Your task to perform on an android device: Go to Reddit.com Image 0: 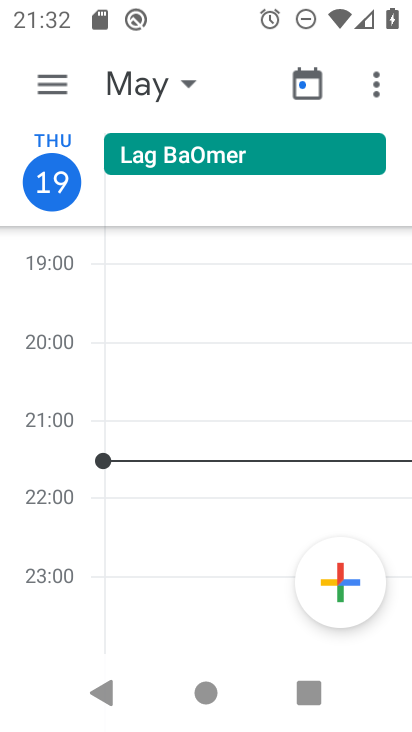
Step 0: press home button
Your task to perform on an android device: Go to Reddit.com Image 1: 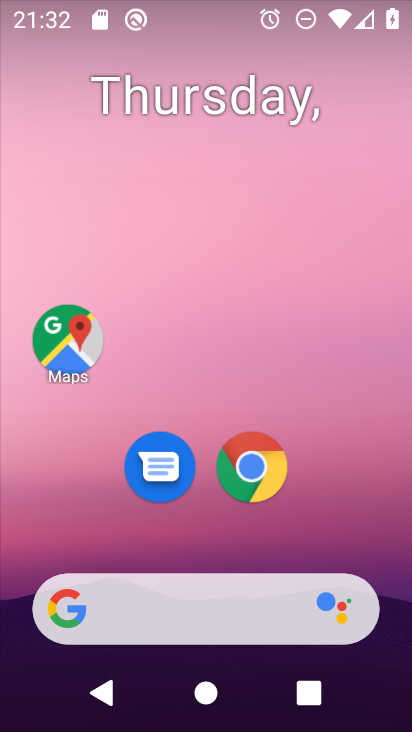
Step 1: click (254, 464)
Your task to perform on an android device: Go to Reddit.com Image 2: 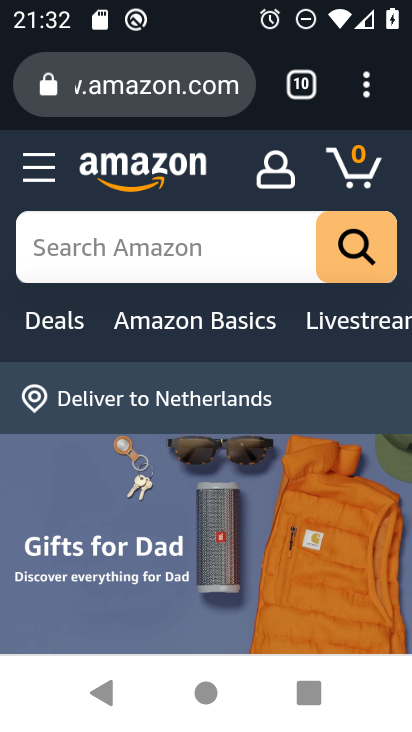
Step 2: click (352, 82)
Your task to perform on an android device: Go to Reddit.com Image 3: 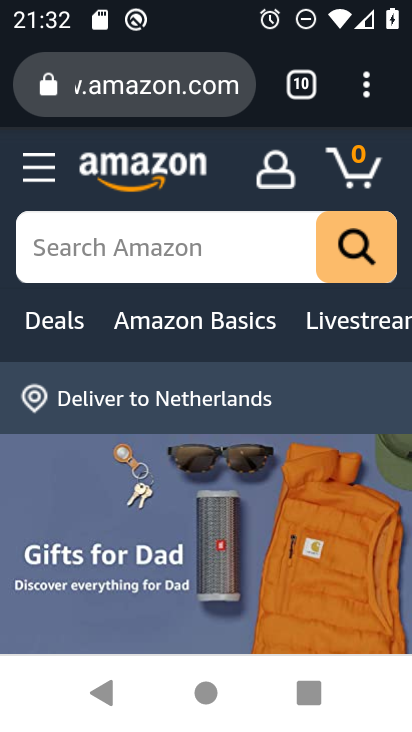
Step 3: click (354, 80)
Your task to perform on an android device: Go to Reddit.com Image 4: 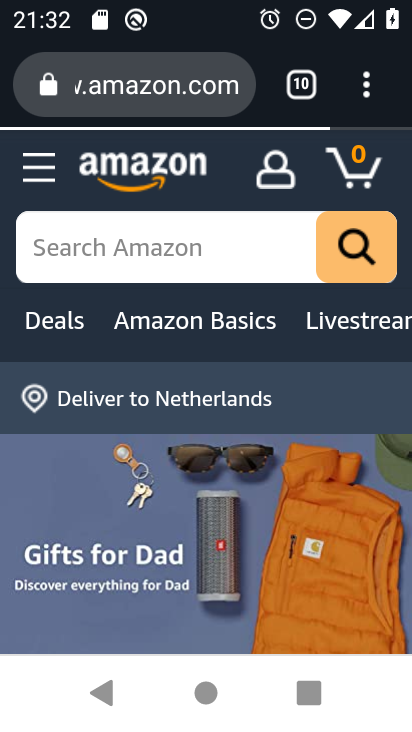
Step 4: click (366, 102)
Your task to perform on an android device: Go to Reddit.com Image 5: 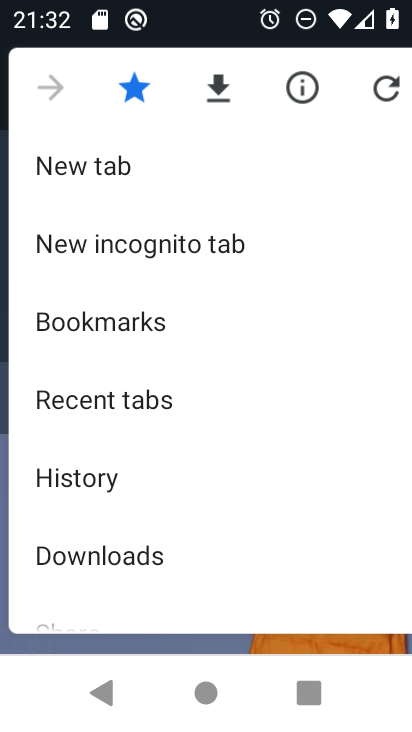
Step 5: click (145, 161)
Your task to perform on an android device: Go to Reddit.com Image 6: 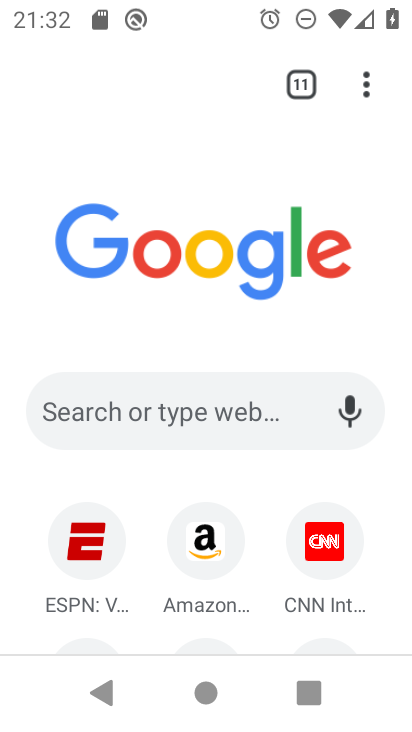
Step 6: click (132, 404)
Your task to perform on an android device: Go to Reddit.com Image 7: 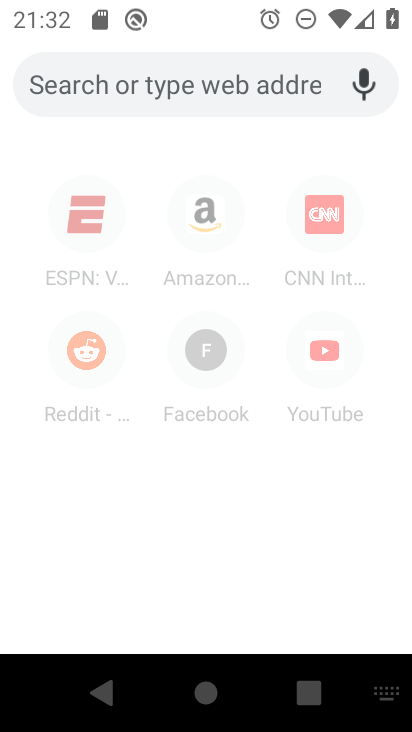
Step 7: type "Reddit.com"
Your task to perform on an android device: Go to Reddit.com Image 8: 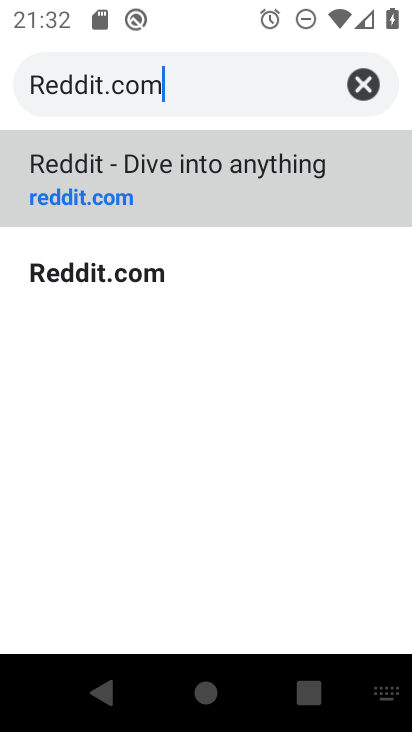
Step 8: click (173, 273)
Your task to perform on an android device: Go to Reddit.com Image 9: 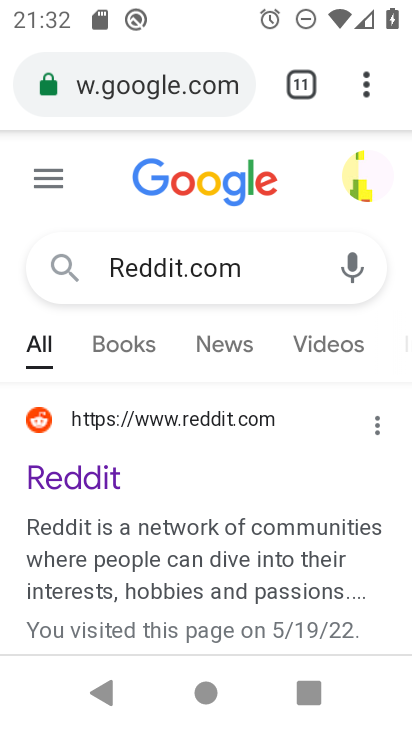
Step 9: task complete